Your task to perform on an android device: change the clock style Image 0: 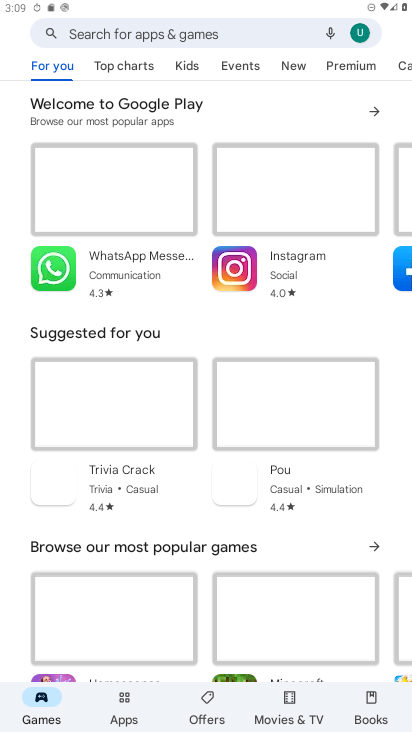
Step 0: press home button
Your task to perform on an android device: change the clock style Image 1: 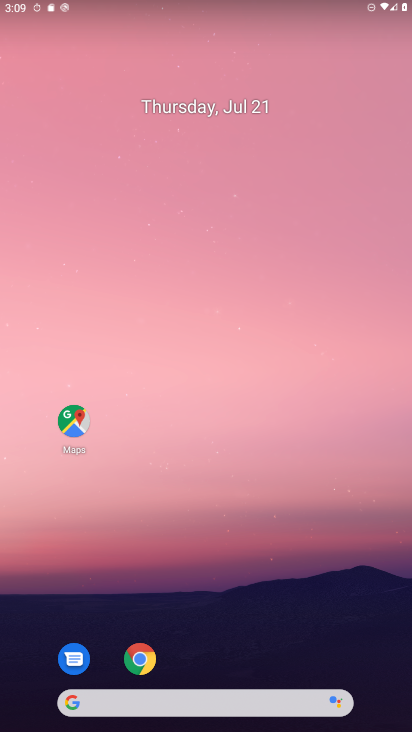
Step 1: drag from (81, 486) to (323, 31)
Your task to perform on an android device: change the clock style Image 2: 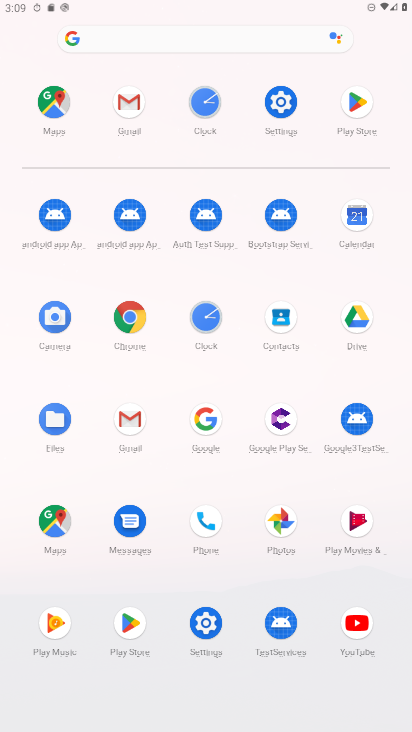
Step 2: click (269, 100)
Your task to perform on an android device: change the clock style Image 3: 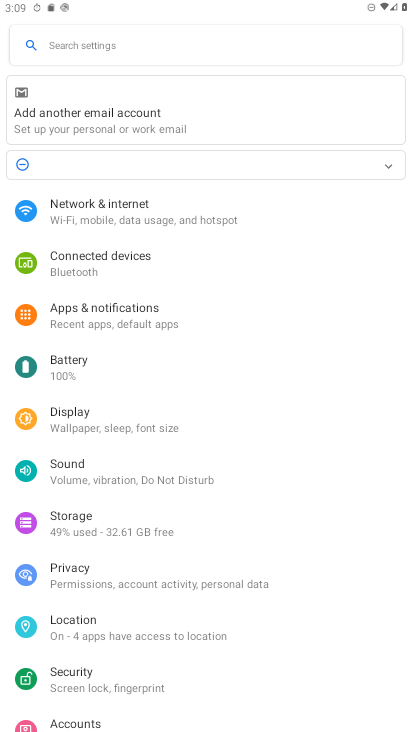
Step 3: press home button
Your task to perform on an android device: change the clock style Image 4: 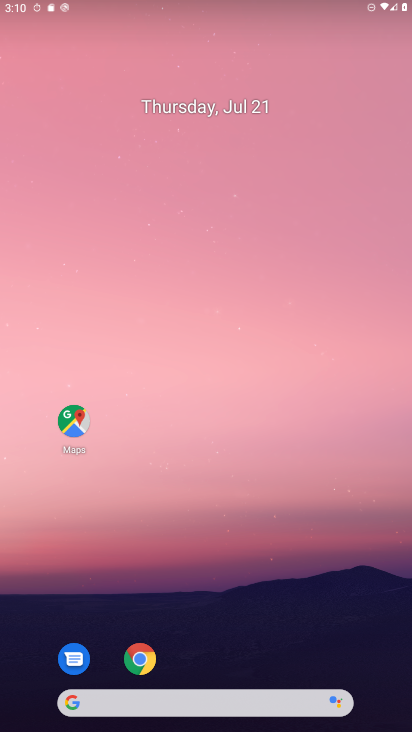
Step 4: drag from (51, 585) to (218, 184)
Your task to perform on an android device: change the clock style Image 5: 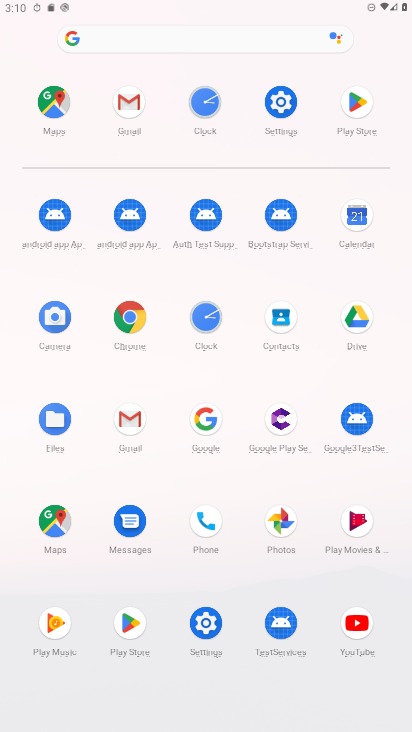
Step 5: click (208, 304)
Your task to perform on an android device: change the clock style Image 6: 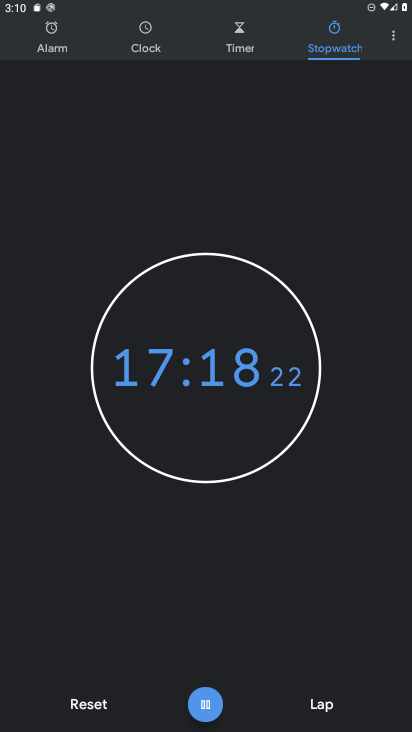
Step 6: click (391, 36)
Your task to perform on an android device: change the clock style Image 7: 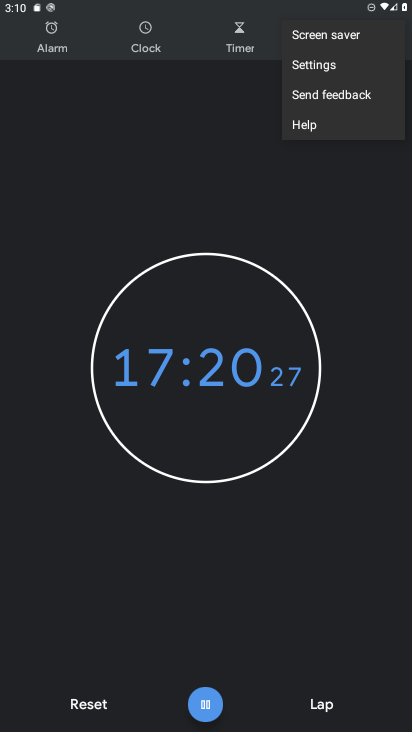
Step 7: click (335, 70)
Your task to perform on an android device: change the clock style Image 8: 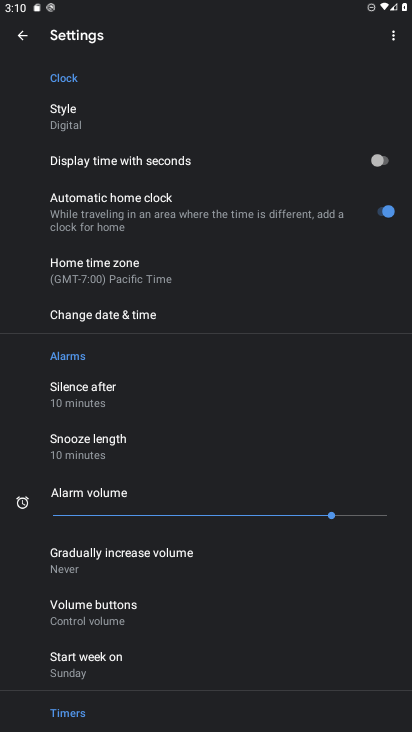
Step 8: click (67, 126)
Your task to perform on an android device: change the clock style Image 9: 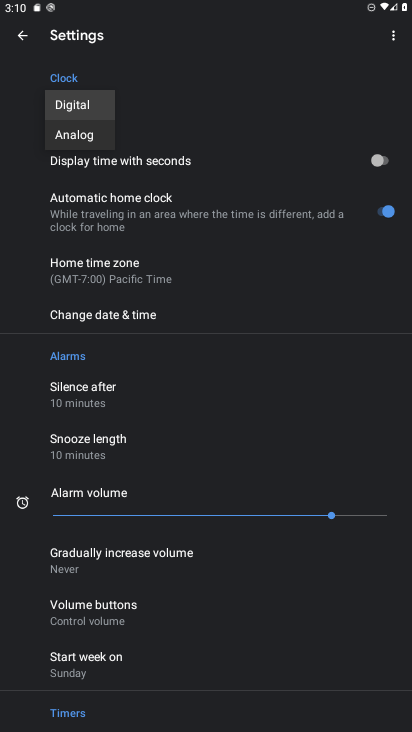
Step 9: click (69, 130)
Your task to perform on an android device: change the clock style Image 10: 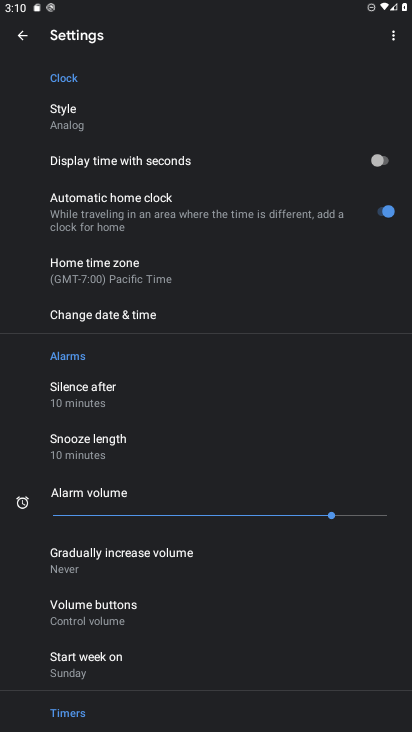
Step 10: task complete